Your task to perform on an android device: clear history in the chrome app Image 0: 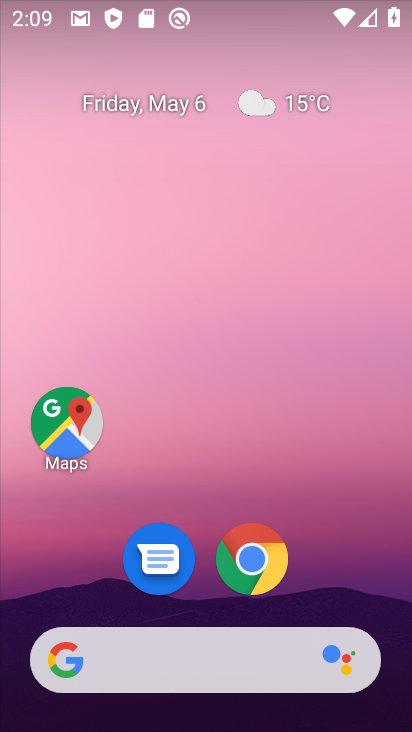
Step 0: click (249, 554)
Your task to perform on an android device: clear history in the chrome app Image 1: 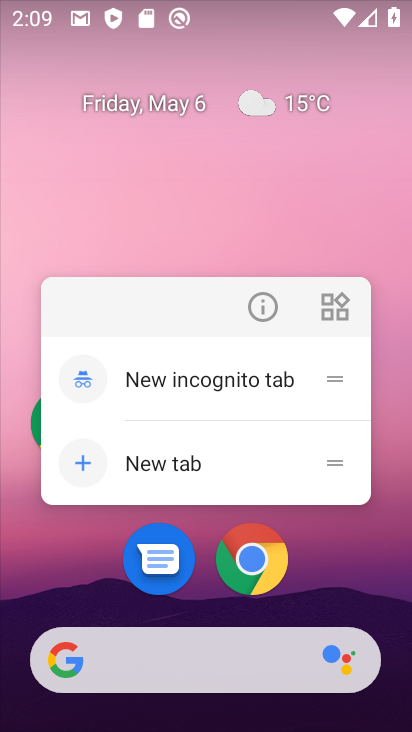
Step 1: click (335, 563)
Your task to perform on an android device: clear history in the chrome app Image 2: 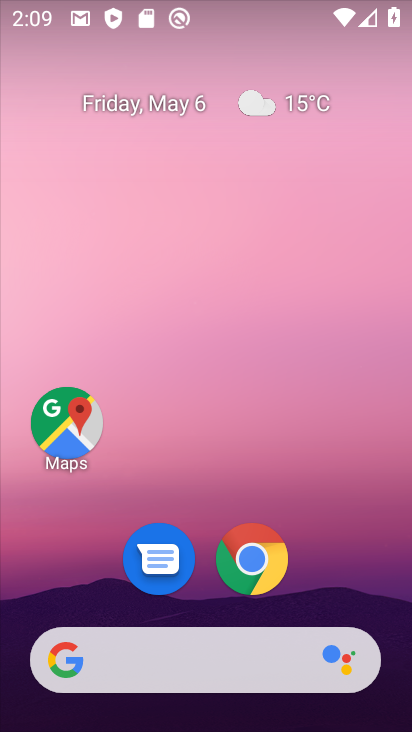
Step 2: click (249, 554)
Your task to perform on an android device: clear history in the chrome app Image 3: 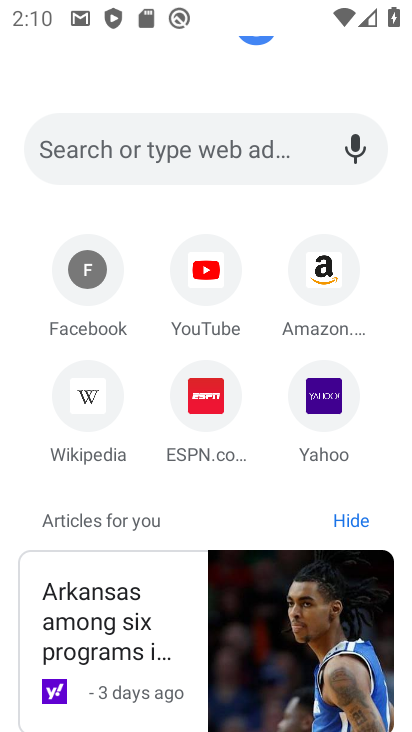
Step 3: drag from (280, 108) to (308, 726)
Your task to perform on an android device: clear history in the chrome app Image 4: 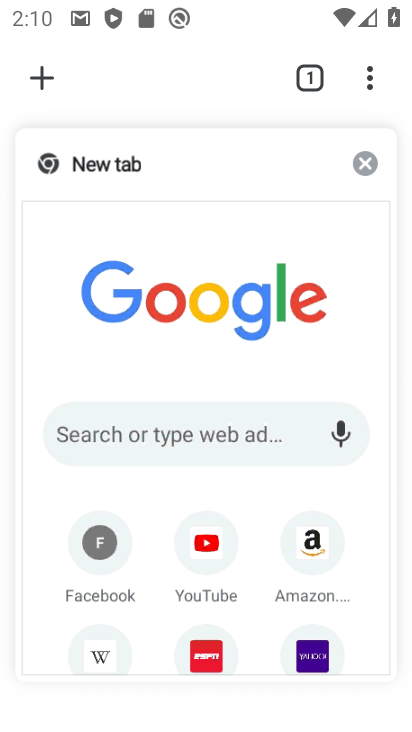
Step 4: click (269, 203)
Your task to perform on an android device: clear history in the chrome app Image 5: 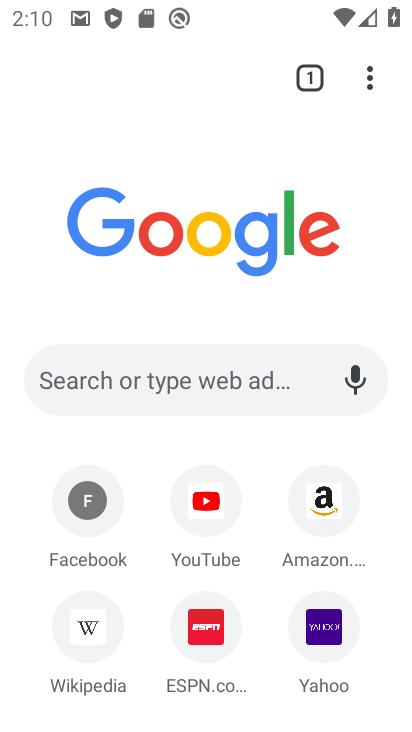
Step 5: click (369, 75)
Your task to perform on an android device: clear history in the chrome app Image 6: 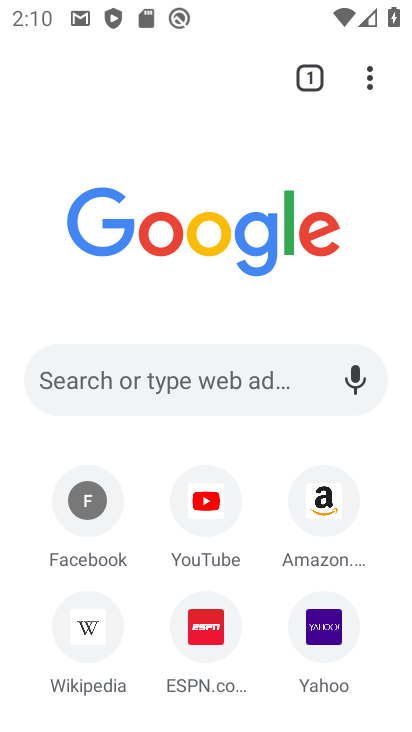
Step 6: click (372, 68)
Your task to perform on an android device: clear history in the chrome app Image 7: 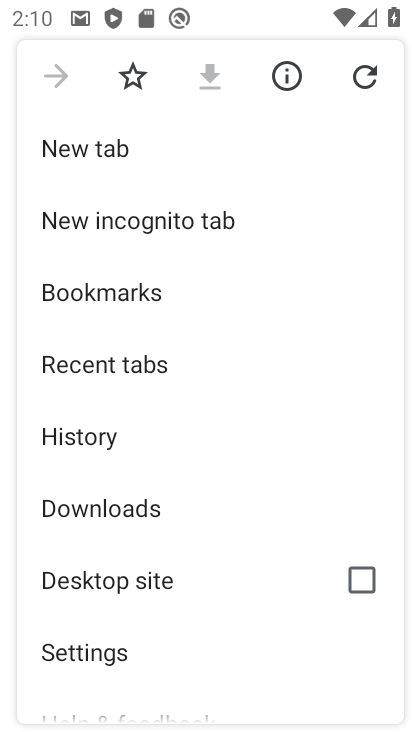
Step 7: click (131, 431)
Your task to perform on an android device: clear history in the chrome app Image 8: 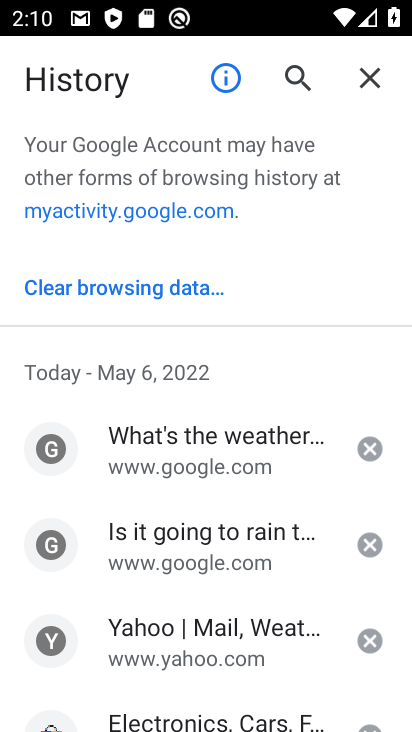
Step 8: click (139, 290)
Your task to perform on an android device: clear history in the chrome app Image 9: 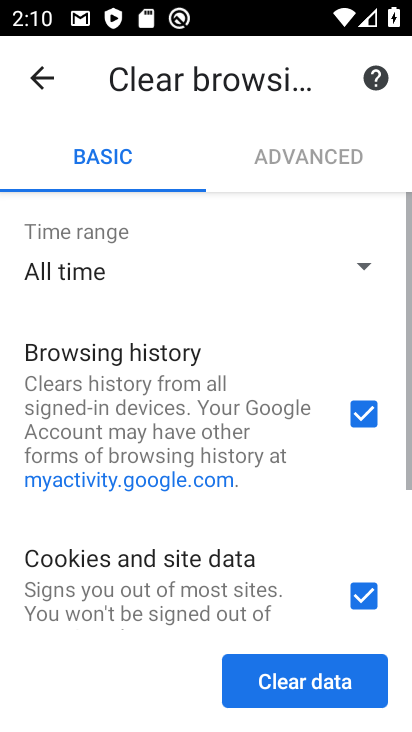
Step 9: click (315, 679)
Your task to perform on an android device: clear history in the chrome app Image 10: 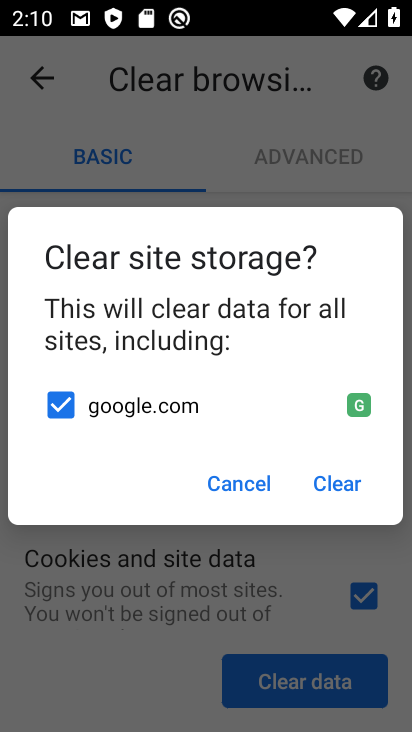
Step 10: click (335, 494)
Your task to perform on an android device: clear history in the chrome app Image 11: 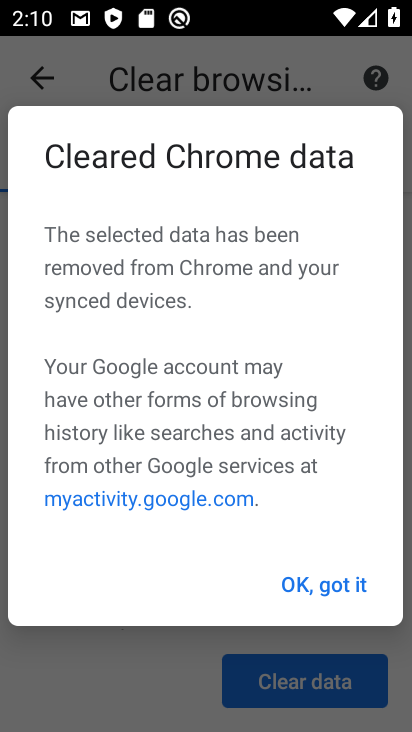
Step 11: click (327, 584)
Your task to perform on an android device: clear history in the chrome app Image 12: 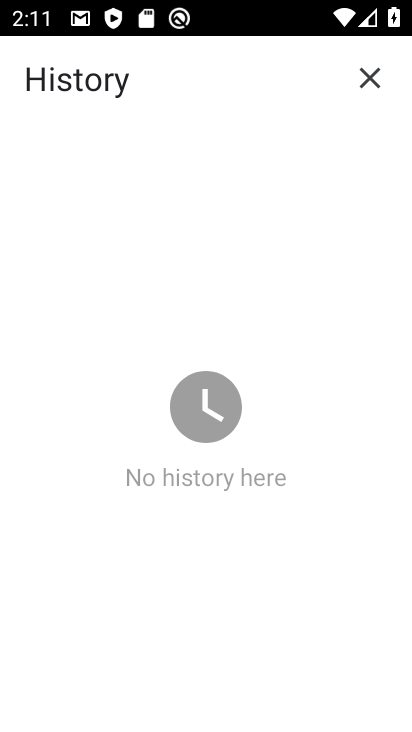
Step 12: click (367, 80)
Your task to perform on an android device: clear history in the chrome app Image 13: 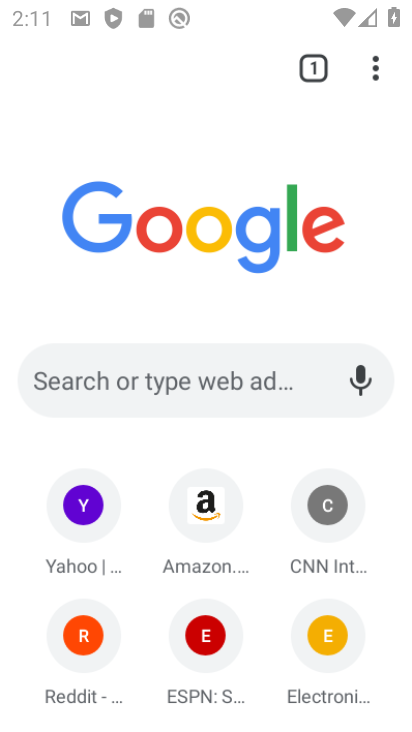
Step 13: task complete